Your task to perform on an android device: Show me popular videos on Youtube Image 0: 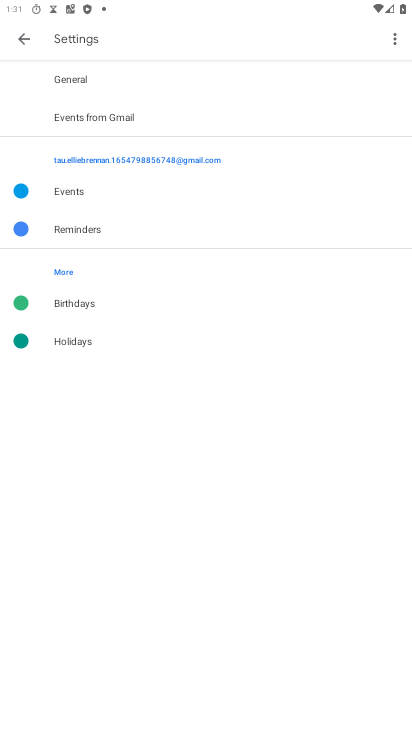
Step 0: press home button
Your task to perform on an android device: Show me popular videos on Youtube Image 1: 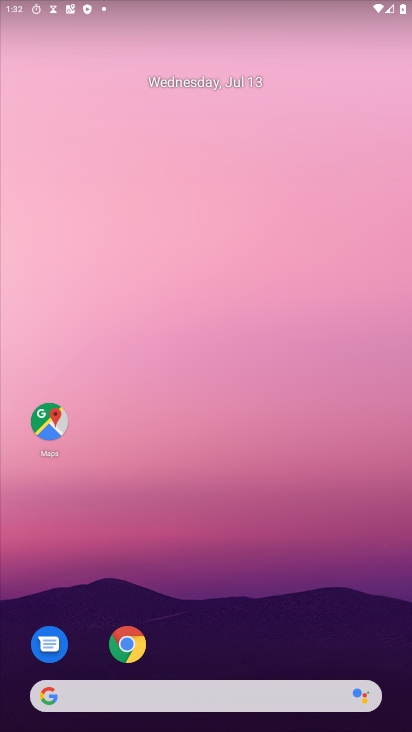
Step 1: drag from (235, 641) to (209, 154)
Your task to perform on an android device: Show me popular videos on Youtube Image 2: 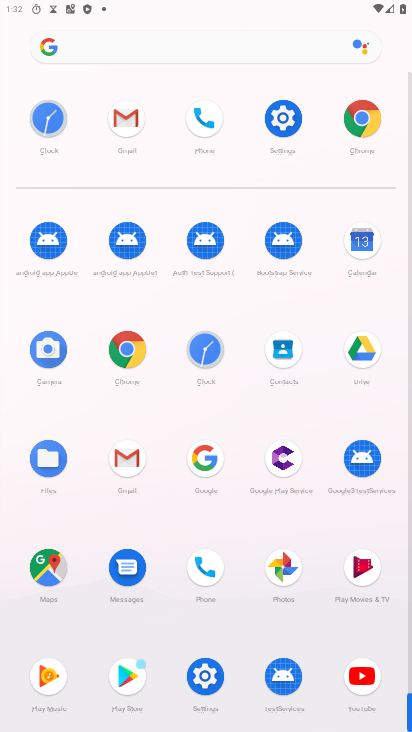
Step 2: click (359, 670)
Your task to perform on an android device: Show me popular videos on Youtube Image 3: 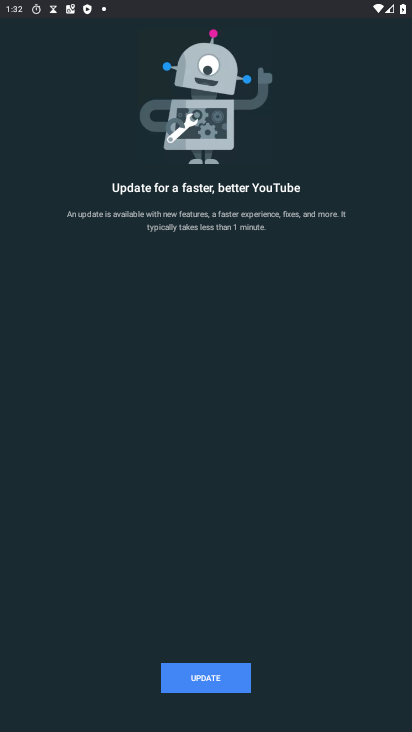
Step 3: click (214, 668)
Your task to perform on an android device: Show me popular videos on Youtube Image 4: 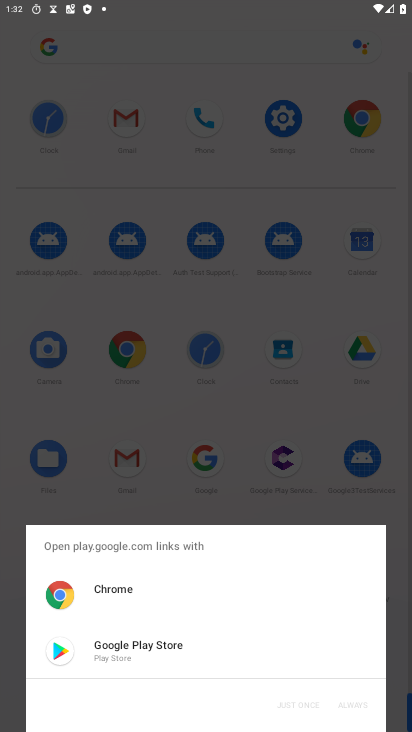
Step 4: click (134, 646)
Your task to perform on an android device: Show me popular videos on Youtube Image 5: 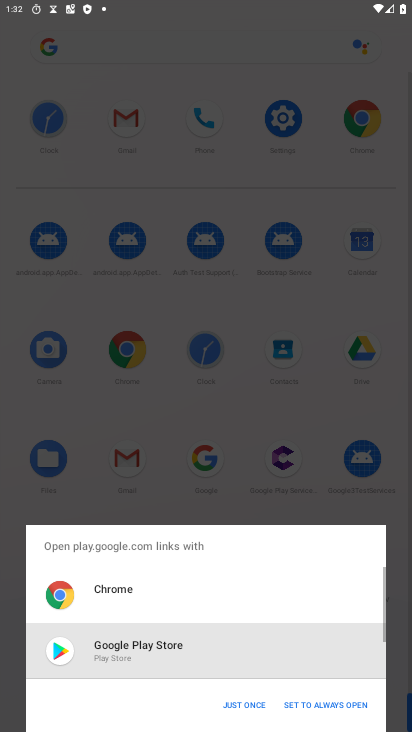
Step 5: click (251, 706)
Your task to perform on an android device: Show me popular videos on Youtube Image 6: 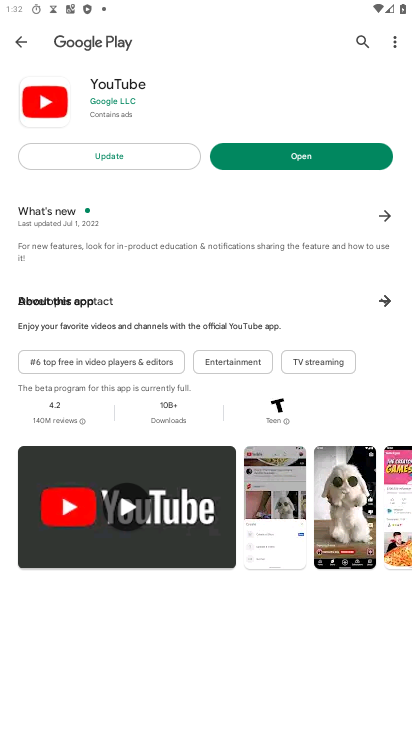
Step 6: click (137, 149)
Your task to perform on an android device: Show me popular videos on Youtube Image 7: 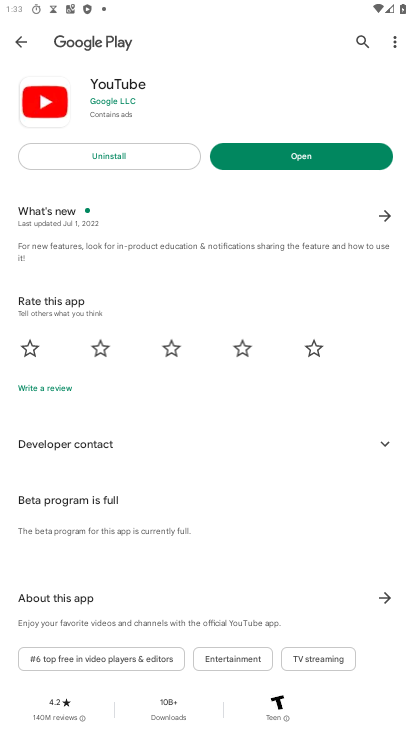
Step 7: click (270, 150)
Your task to perform on an android device: Show me popular videos on Youtube Image 8: 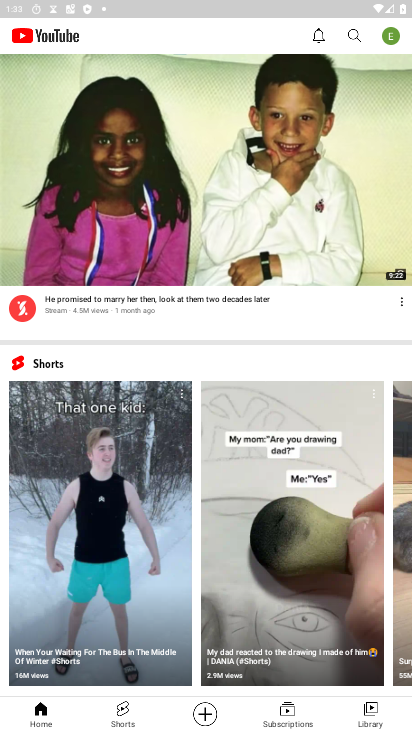
Step 8: drag from (260, 307) to (302, 680)
Your task to perform on an android device: Show me popular videos on Youtube Image 9: 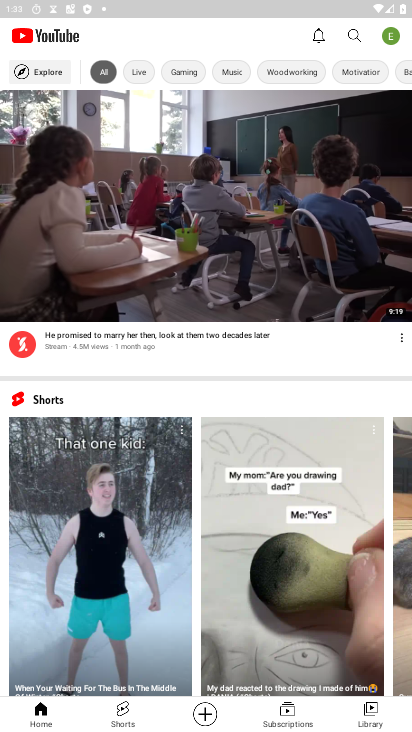
Step 9: click (34, 69)
Your task to perform on an android device: Show me popular videos on Youtube Image 10: 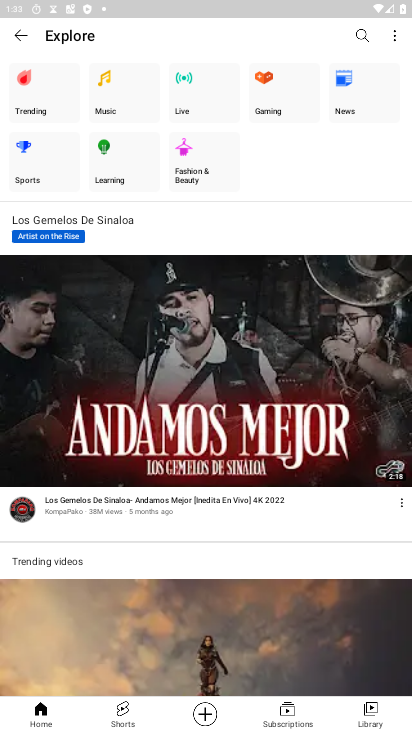
Step 10: click (30, 76)
Your task to perform on an android device: Show me popular videos on Youtube Image 11: 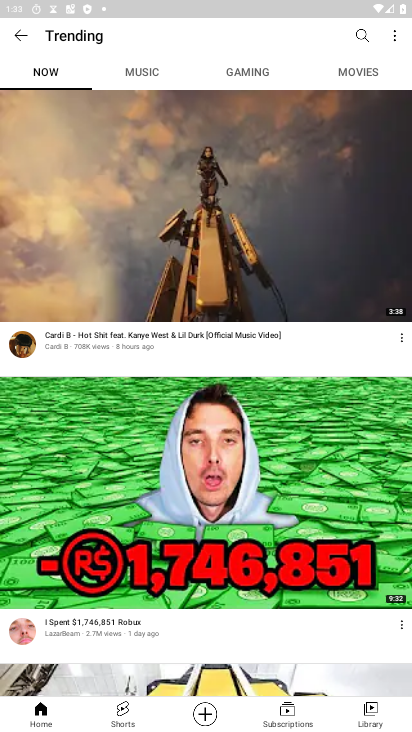
Step 11: task complete